Your task to perform on an android device: delete browsing data in the chrome app Image 0: 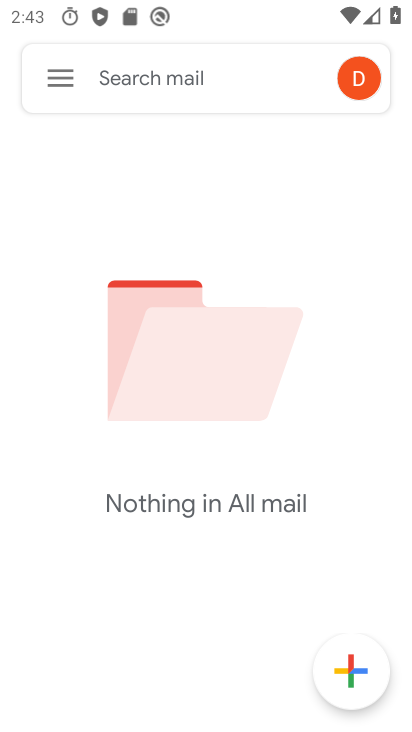
Step 0: press home button
Your task to perform on an android device: delete browsing data in the chrome app Image 1: 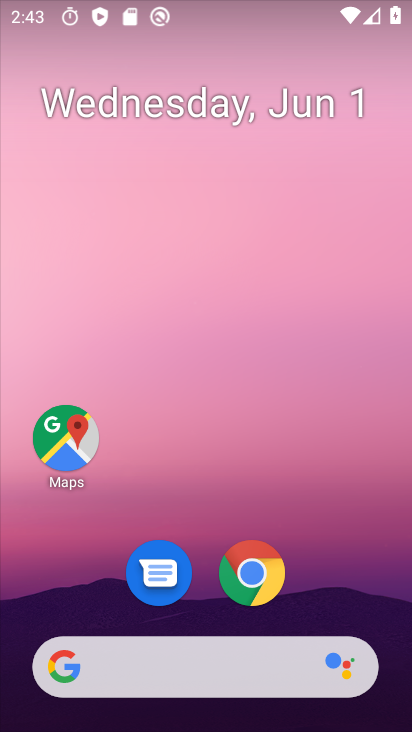
Step 1: click (241, 594)
Your task to perform on an android device: delete browsing data in the chrome app Image 2: 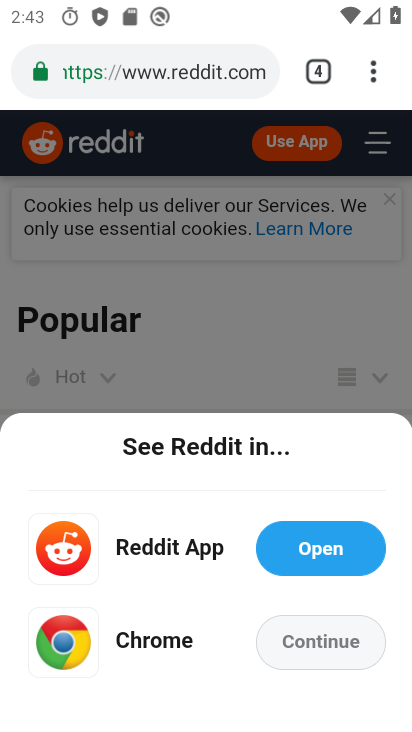
Step 2: click (336, 632)
Your task to perform on an android device: delete browsing data in the chrome app Image 3: 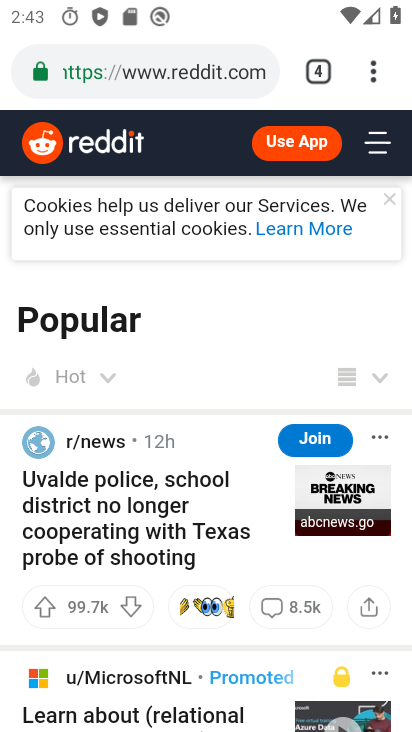
Step 3: task complete